Your task to perform on an android device: View the shopping cart on target. Add panasonic triple a to the cart on target, then select checkout. Image 0: 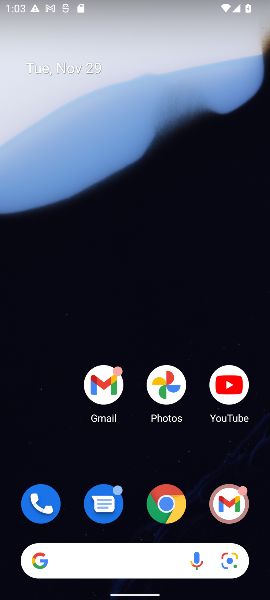
Step 0: click (169, 506)
Your task to perform on an android device: View the shopping cart on target. Add panasonic triple a to the cart on target, then select checkout. Image 1: 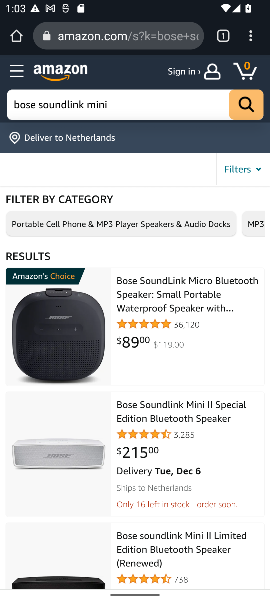
Step 1: click (110, 39)
Your task to perform on an android device: View the shopping cart on target. Add panasonic triple a to the cart on target, then select checkout. Image 2: 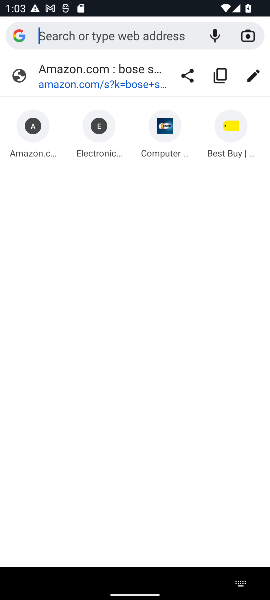
Step 2: type "target.com"
Your task to perform on an android device: View the shopping cart on target. Add panasonic triple a to the cart on target, then select checkout. Image 3: 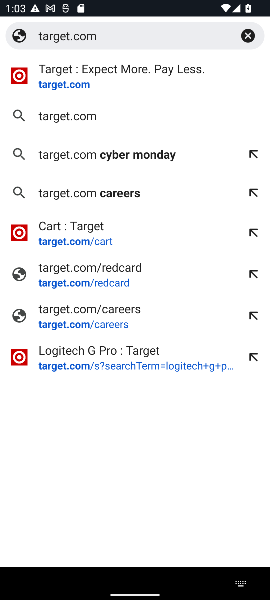
Step 3: click (53, 87)
Your task to perform on an android device: View the shopping cart on target. Add panasonic triple a to the cart on target, then select checkout. Image 4: 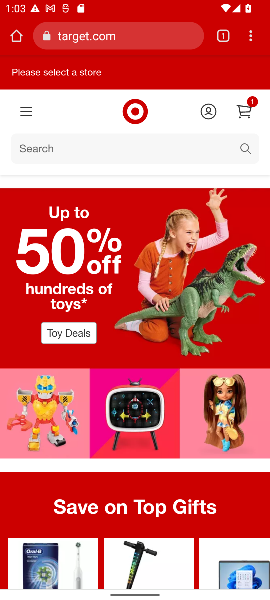
Step 4: click (244, 124)
Your task to perform on an android device: View the shopping cart on target. Add panasonic triple a to the cart on target, then select checkout. Image 5: 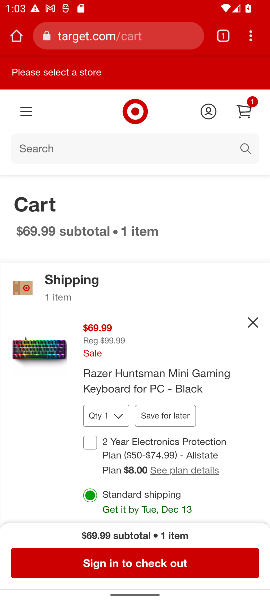
Step 5: click (41, 149)
Your task to perform on an android device: View the shopping cart on target. Add panasonic triple a to the cart on target, then select checkout. Image 6: 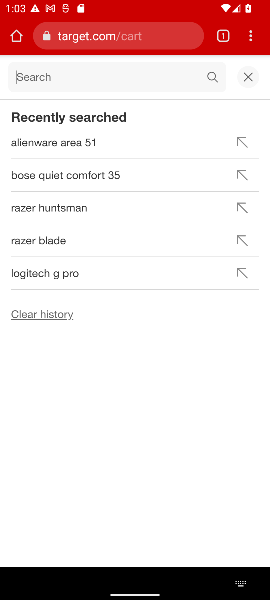
Step 6: type "panasonic triple a"
Your task to perform on an android device: View the shopping cart on target. Add panasonic triple a to the cart on target, then select checkout. Image 7: 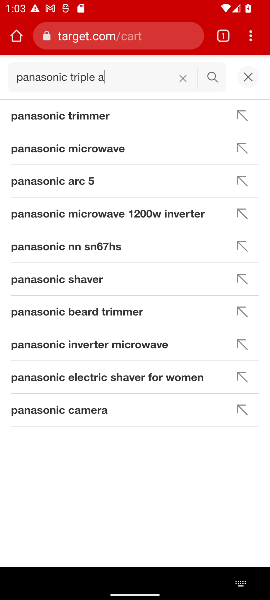
Step 7: click (215, 81)
Your task to perform on an android device: View the shopping cart on target. Add panasonic triple a to the cart on target, then select checkout. Image 8: 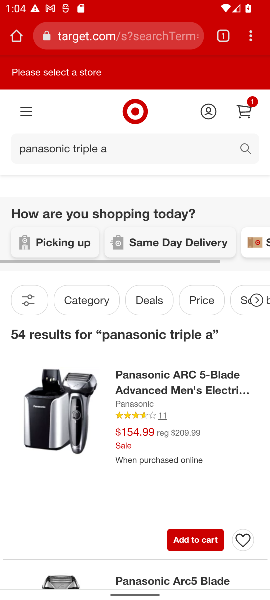
Step 8: click (242, 109)
Your task to perform on an android device: View the shopping cart on target. Add panasonic triple a to the cart on target, then select checkout. Image 9: 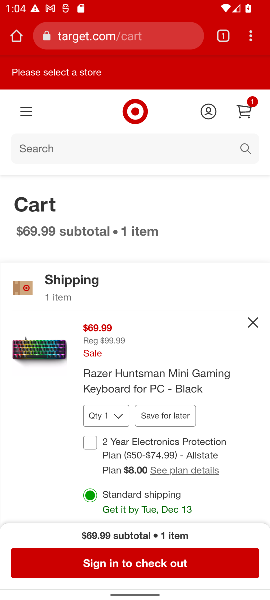
Step 9: click (53, 153)
Your task to perform on an android device: View the shopping cart on target. Add panasonic triple a to the cart on target, then select checkout. Image 10: 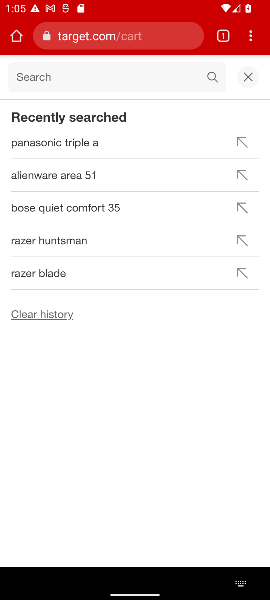
Step 10: type " panasonic triple a"
Your task to perform on an android device: View the shopping cart on target. Add panasonic triple a to the cart on target, then select checkout. Image 11: 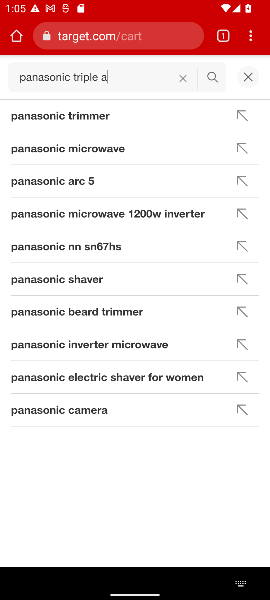
Step 11: click (216, 78)
Your task to perform on an android device: View the shopping cart on target. Add panasonic triple a to the cart on target, then select checkout. Image 12: 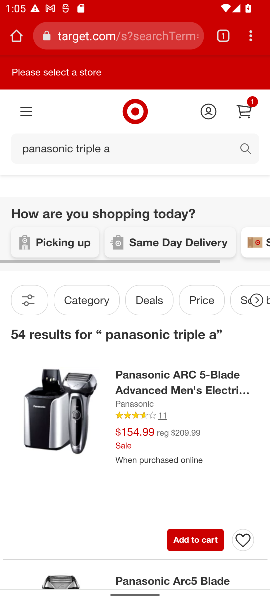
Step 12: task complete